Your task to perform on an android device: Clear the cart on ebay. Search for "jbl charge 4" on ebay, select the first entry, add it to the cart, then select checkout. Image 0: 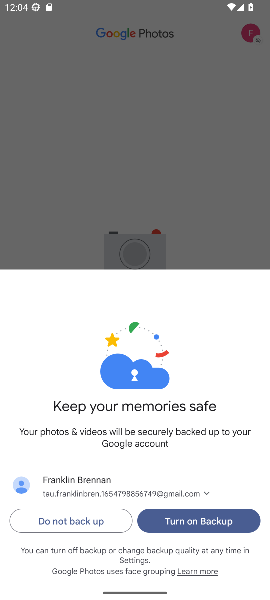
Step 0: press home button
Your task to perform on an android device: Clear the cart on ebay. Search for "jbl charge 4" on ebay, select the first entry, add it to the cart, then select checkout. Image 1: 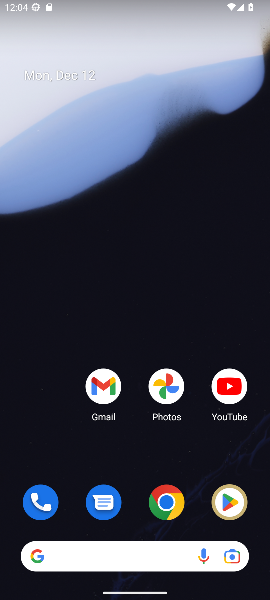
Step 1: click (171, 511)
Your task to perform on an android device: Clear the cart on ebay. Search for "jbl charge 4" on ebay, select the first entry, add it to the cart, then select checkout. Image 2: 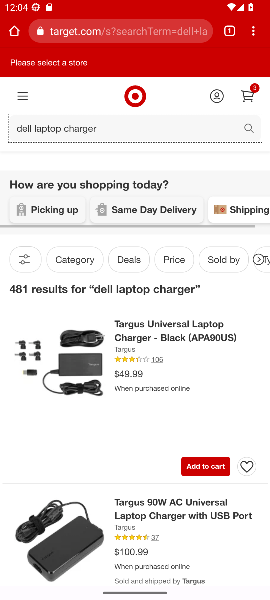
Step 2: click (103, 22)
Your task to perform on an android device: Clear the cart on ebay. Search for "jbl charge 4" on ebay, select the first entry, add it to the cart, then select checkout. Image 3: 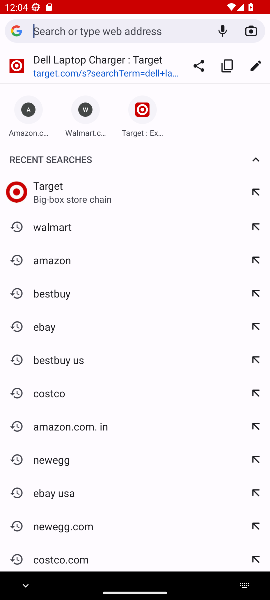
Step 3: type "ebay.ocm"
Your task to perform on an android device: Clear the cart on ebay. Search for "jbl charge 4" on ebay, select the first entry, add it to the cart, then select checkout. Image 4: 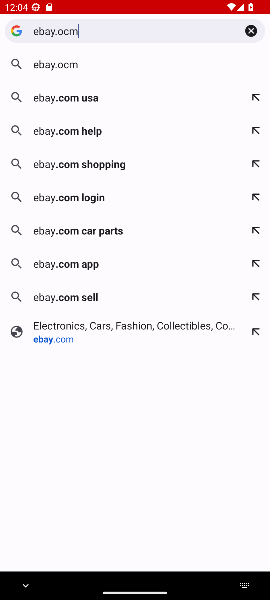
Step 4: click (79, 100)
Your task to perform on an android device: Clear the cart on ebay. Search for "jbl charge 4" on ebay, select the first entry, add it to the cart, then select checkout. Image 5: 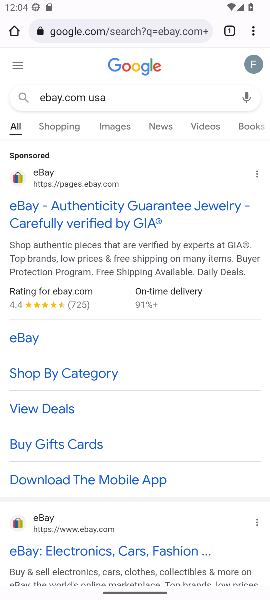
Step 5: click (42, 230)
Your task to perform on an android device: Clear the cart on ebay. Search for "jbl charge 4" on ebay, select the first entry, add it to the cart, then select checkout. Image 6: 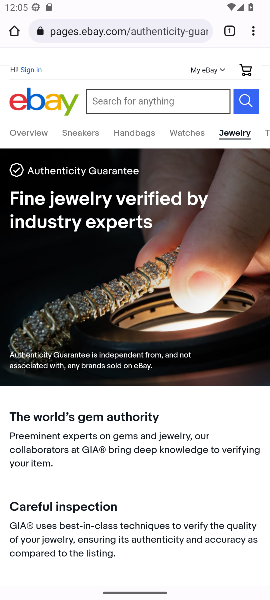
Step 6: click (120, 108)
Your task to perform on an android device: Clear the cart on ebay. Search for "jbl charge 4" on ebay, select the first entry, add it to the cart, then select checkout. Image 7: 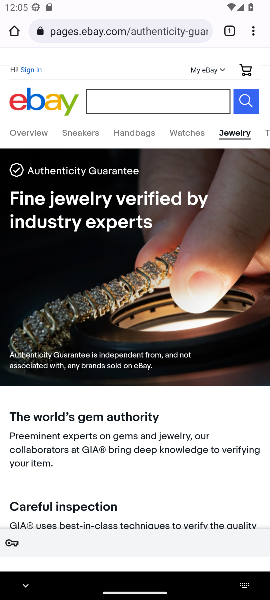
Step 7: type "jbl charge 4"
Your task to perform on an android device: Clear the cart on ebay. Search for "jbl charge 4" on ebay, select the first entry, add it to the cart, then select checkout. Image 8: 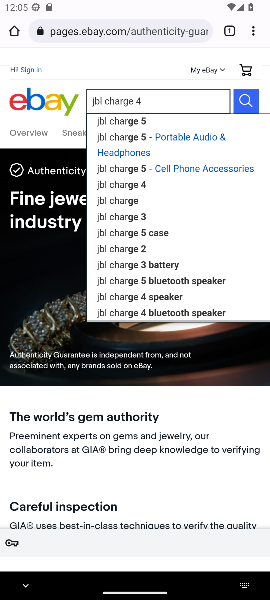
Step 8: click (146, 186)
Your task to perform on an android device: Clear the cart on ebay. Search for "jbl charge 4" on ebay, select the first entry, add it to the cart, then select checkout. Image 9: 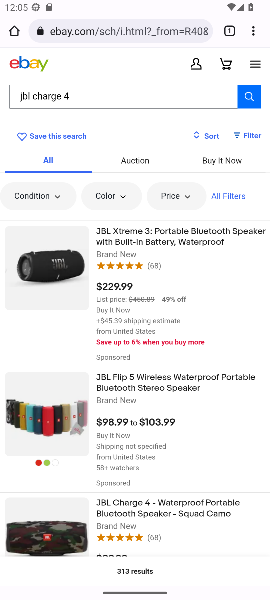
Step 9: click (160, 243)
Your task to perform on an android device: Clear the cart on ebay. Search for "jbl charge 4" on ebay, select the first entry, add it to the cart, then select checkout. Image 10: 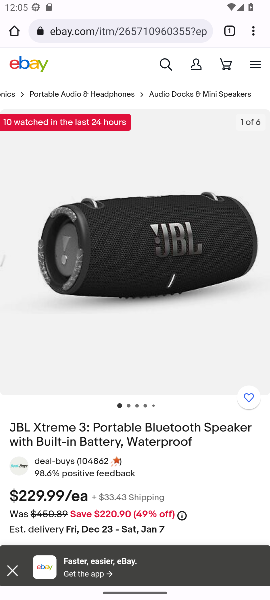
Step 10: drag from (148, 495) to (145, 285)
Your task to perform on an android device: Clear the cart on ebay. Search for "jbl charge 4" on ebay, select the first entry, add it to the cart, then select checkout. Image 11: 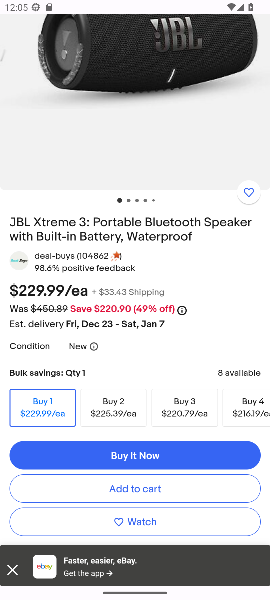
Step 11: click (126, 489)
Your task to perform on an android device: Clear the cart on ebay. Search for "jbl charge 4" on ebay, select the first entry, add it to the cart, then select checkout. Image 12: 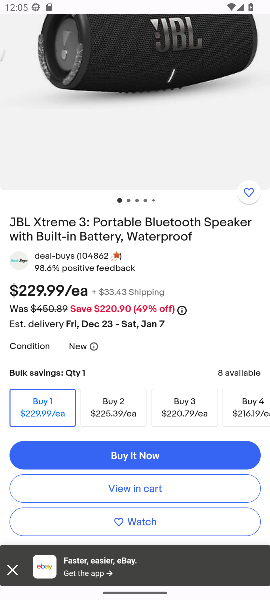
Step 12: task complete